Your task to perform on an android device: check storage Image 0: 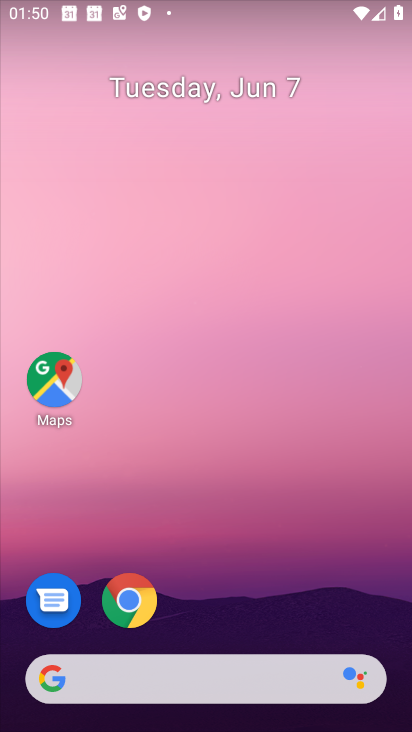
Step 0: drag from (206, 708) to (195, 129)
Your task to perform on an android device: check storage Image 1: 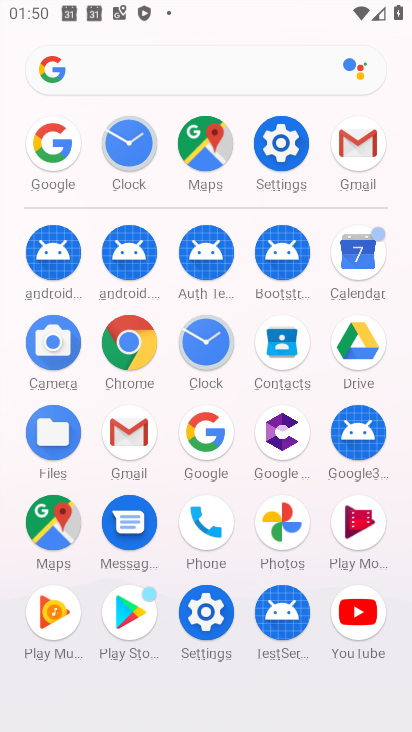
Step 1: click (285, 148)
Your task to perform on an android device: check storage Image 2: 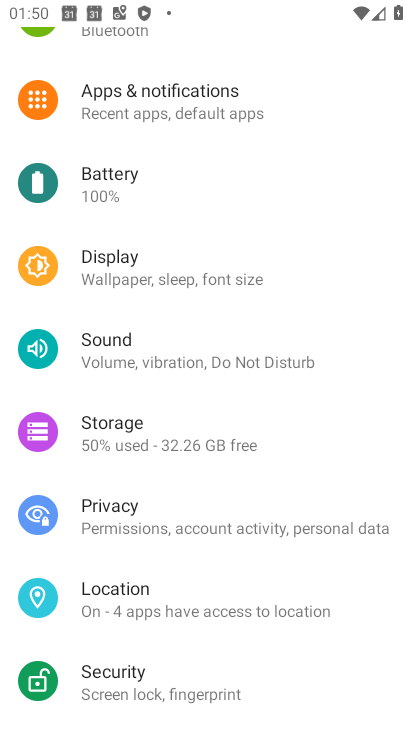
Step 2: click (115, 429)
Your task to perform on an android device: check storage Image 3: 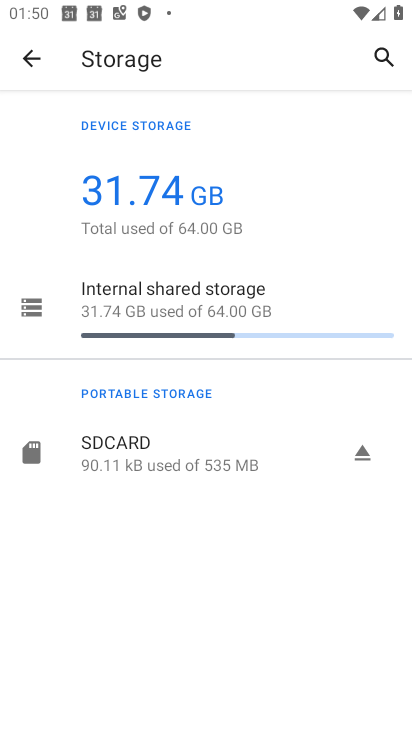
Step 3: task complete